Your task to perform on an android device: turn off notifications in google photos Image 0: 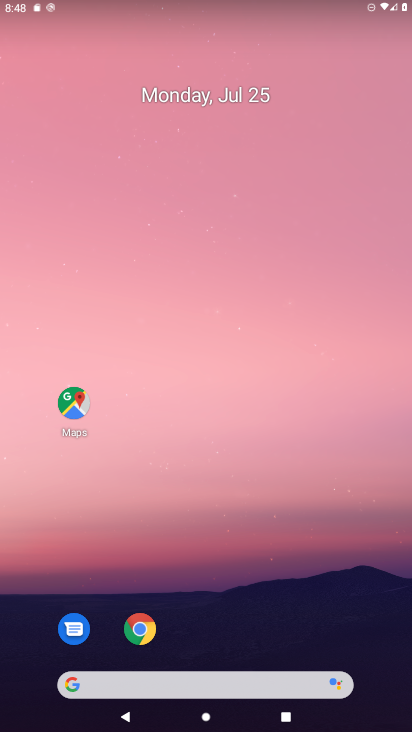
Step 0: drag from (251, 653) to (281, 11)
Your task to perform on an android device: turn off notifications in google photos Image 1: 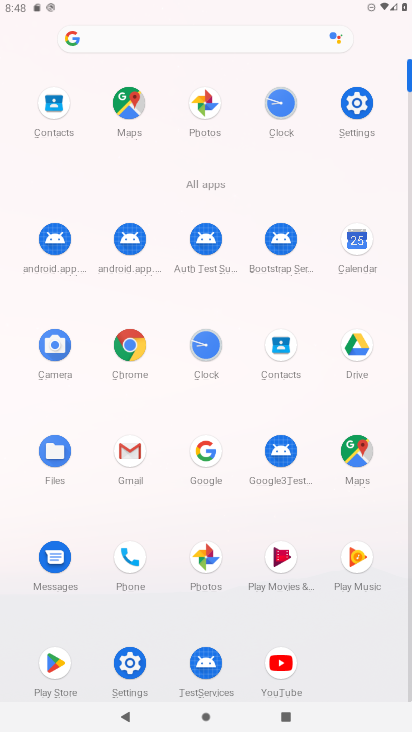
Step 1: click (203, 108)
Your task to perform on an android device: turn off notifications in google photos Image 2: 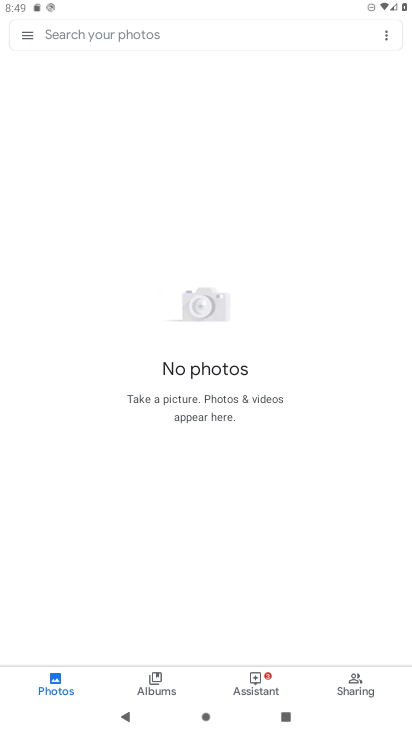
Step 2: click (24, 36)
Your task to perform on an android device: turn off notifications in google photos Image 3: 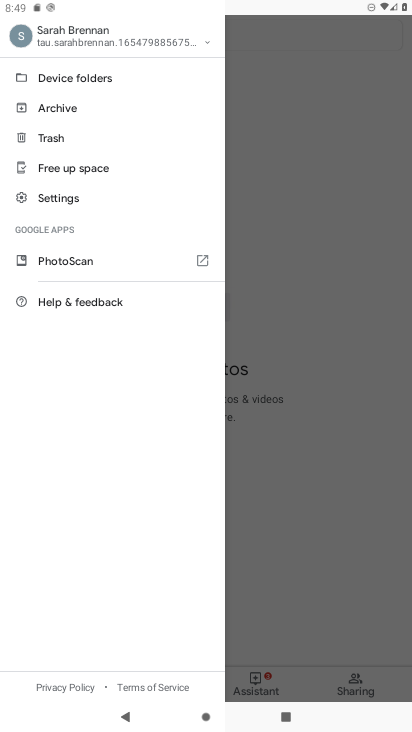
Step 3: click (56, 200)
Your task to perform on an android device: turn off notifications in google photos Image 4: 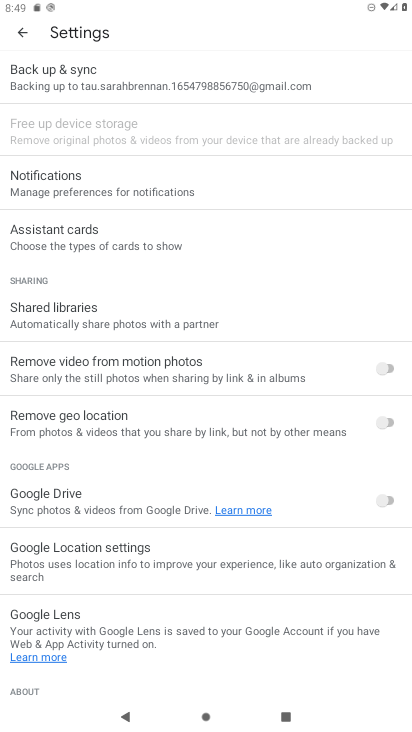
Step 4: click (56, 190)
Your task to perform on an android device: turn off notifications in google photos Image 5: 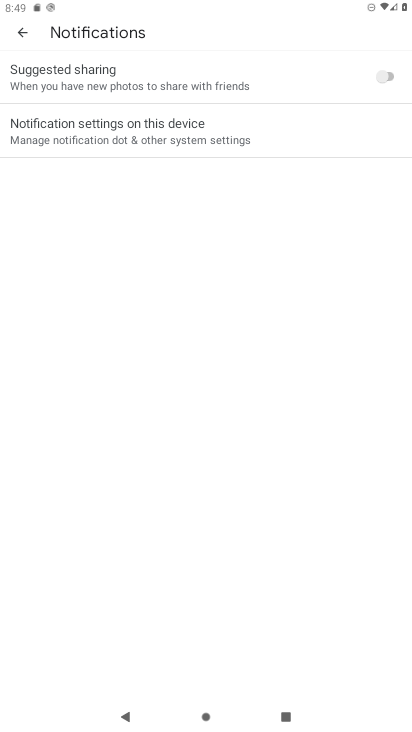
Step 5: click (84, 135)
Your task to perform on an android device: turn off notifications in google photos Image 6: 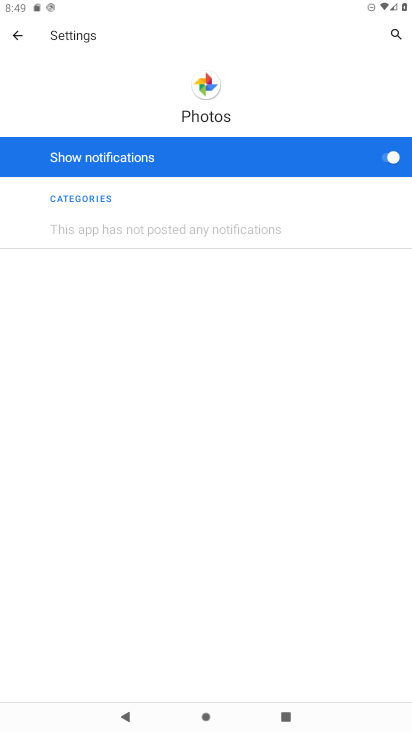
Step 6: click (386, 146)
Your task to perform on an android device: turn off notifications in google photos Image 7: 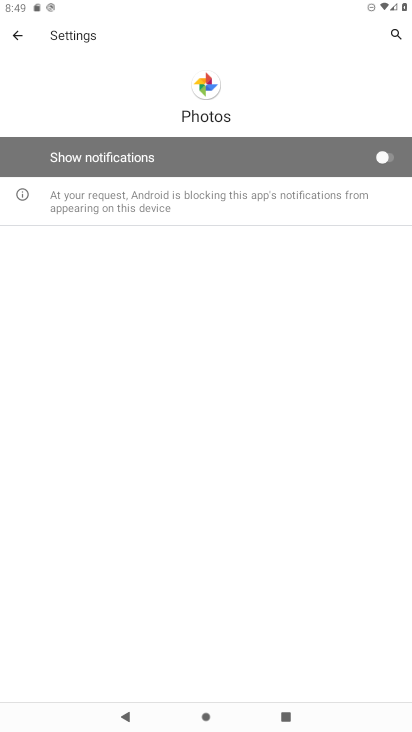
Step 7: task complete